Your task to perform on an android device: Open the calendar app, open the side menu, and click the "Day" option Image 0: 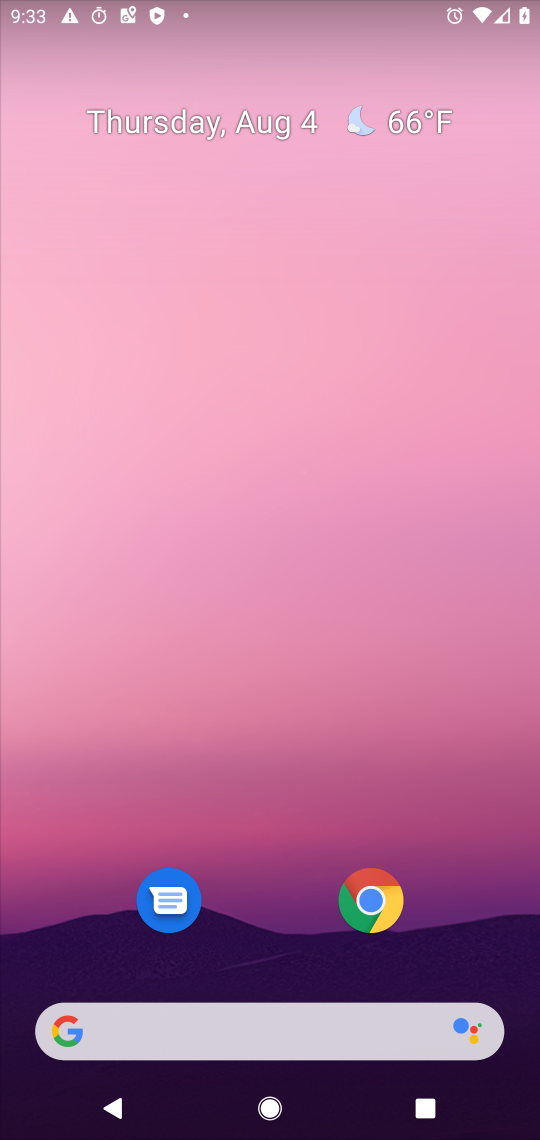
Step 0: drag from (243, 1034) to (217, 313)
Your task to perform on an android device: Open the calendar app, open the side menu, and click the "Day" option Image 1: 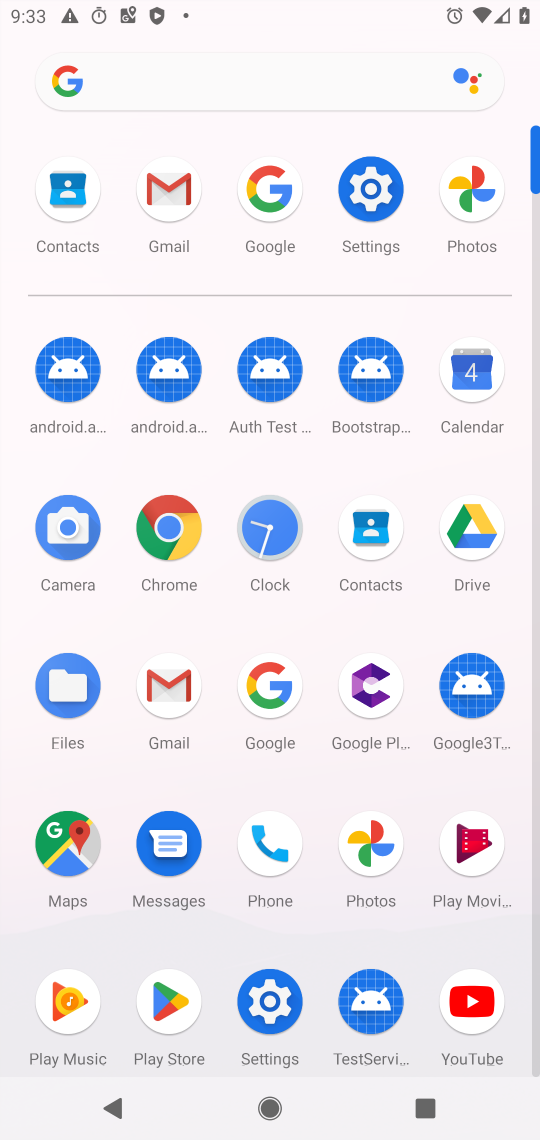
Step 1: click (470, 372)
Your task to perform on an android device: Open the calendar app, open the side menu, and click the "Day" option Image 2: 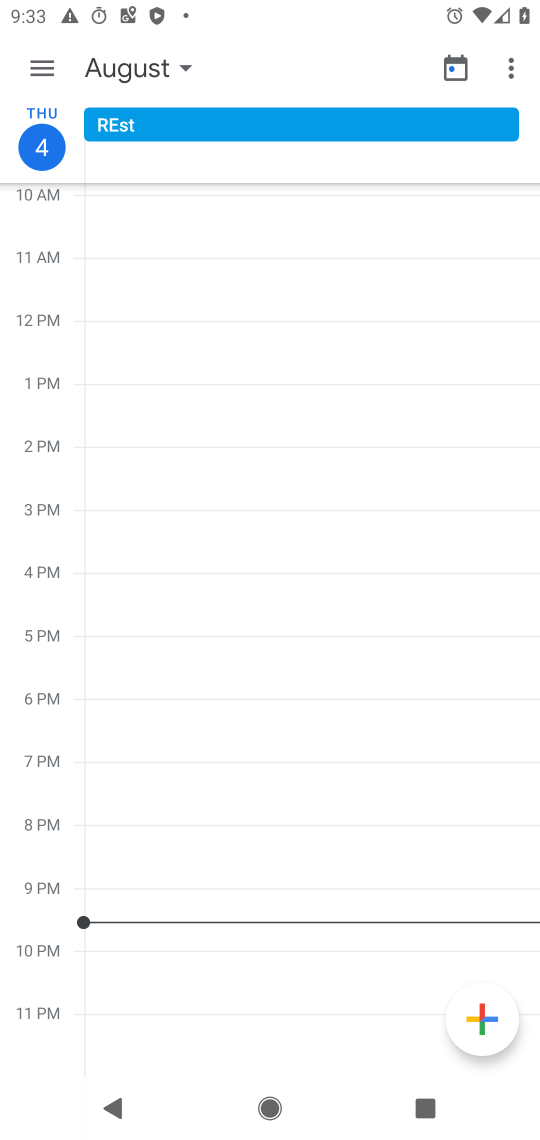
Step 2: click (43, 72)
Your task to perform on an android device: Open the calendar app, open the side menu, and click the "Day" option Image 3: 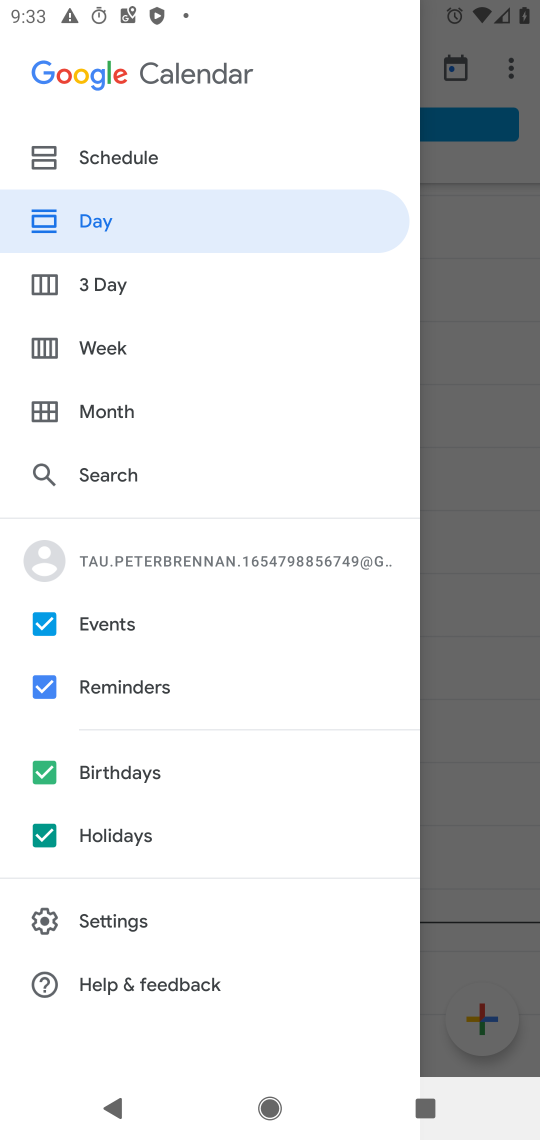
Step 3: click (107, 218)
Your task to perform on an android device: Open the calendar app, open the side menu, and click the "Day" option Image 4: 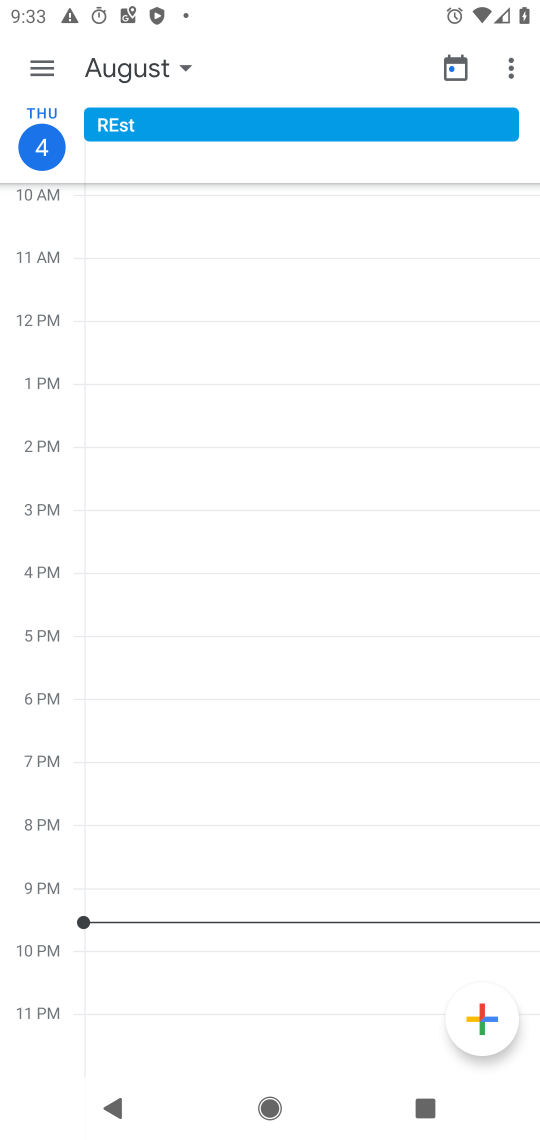
Step 4: task complete